Your task to perform on an android device: Go to battery settings Image 0: 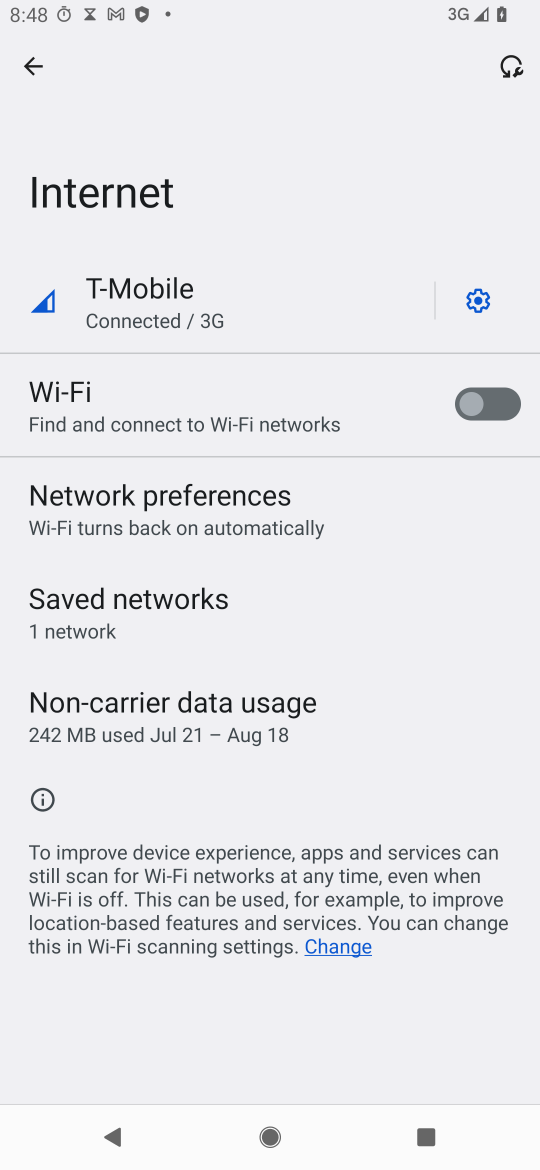
Step 0: press home button
Your task to perform on an android device: Go to battery settings Image 1: 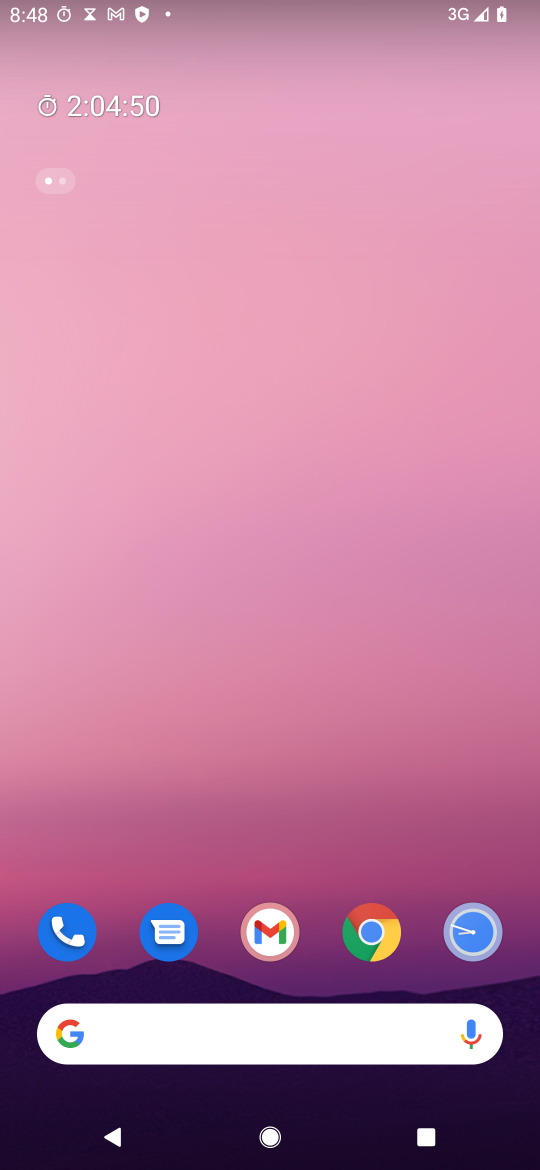
Step 1: drag from (410, 832) to (405, 85)
Your task to perform on an android device: Go to battery settings Image 2: 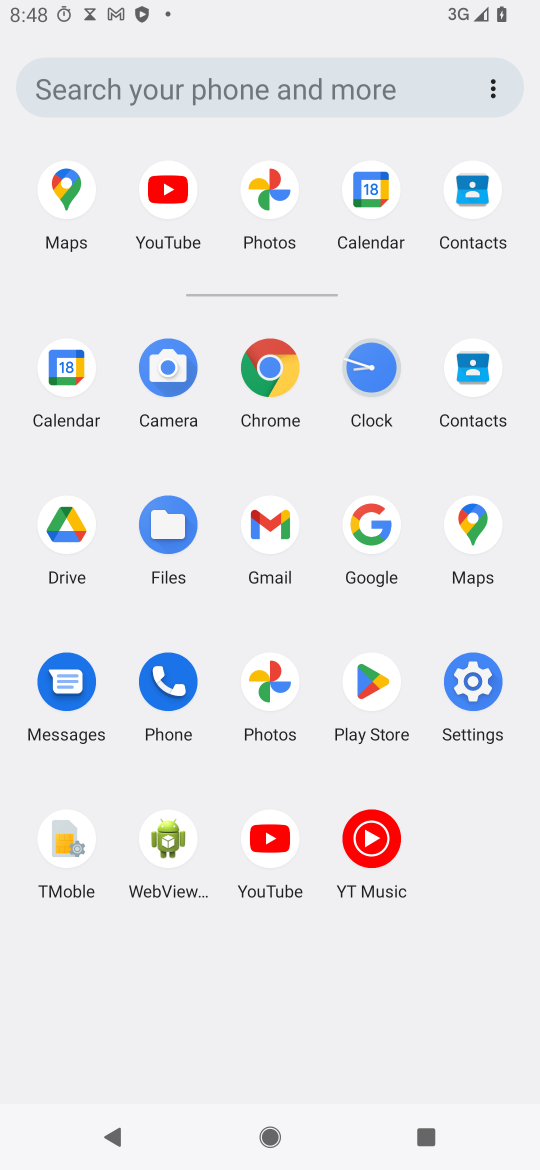
Step 2: click (483, 686)
Your task to perform on an android device: Go to battery settings Image 3: 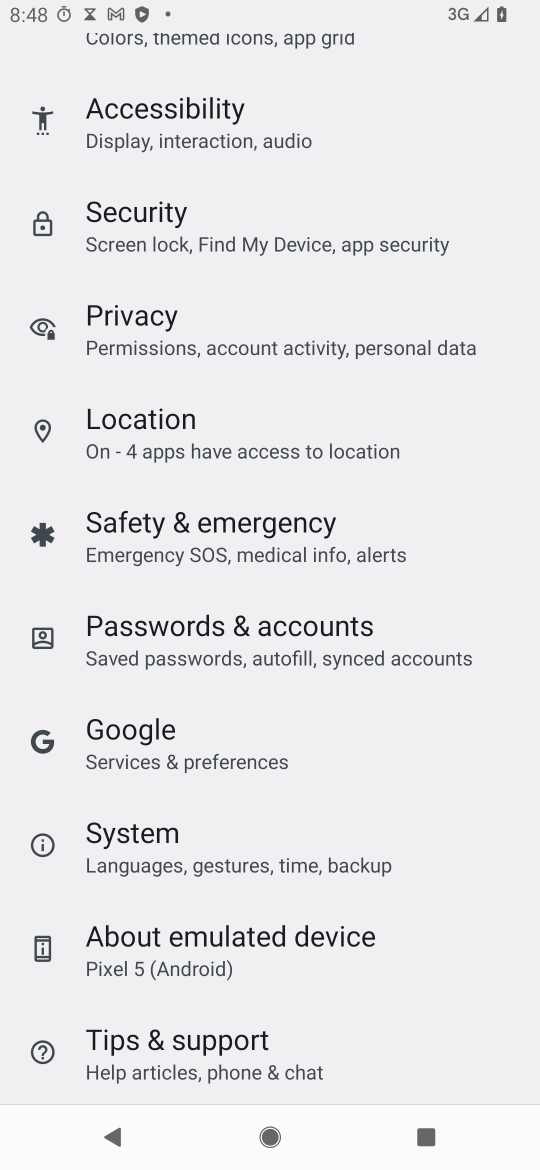
Step 3: drag from (212, 352) to (211, 964)
Your task to perform on an android device: Go to battery settings Image 4: 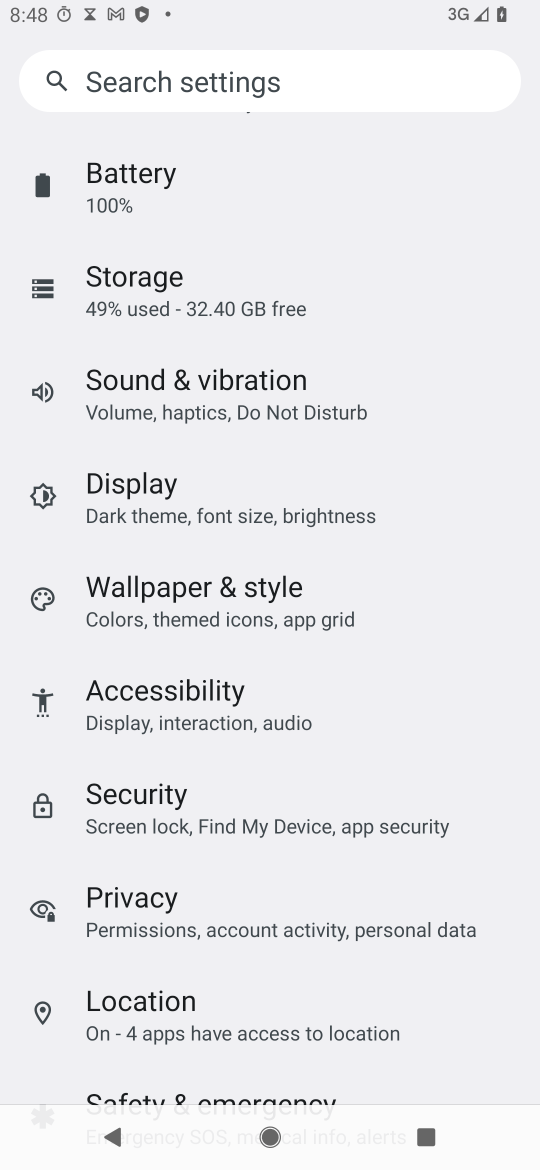
Step 4: click (114, 184)
Your task to perform on an android device: Go to battery settings Image 5: 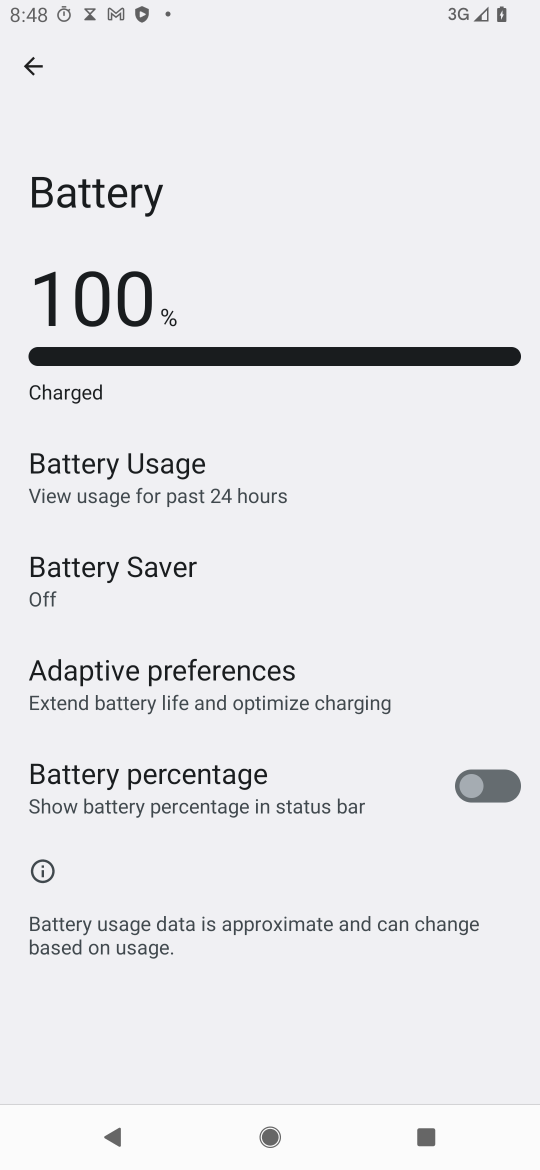
Step 5: task complete